Your task to perform on an android device: Clear the cart on target. Image 0: 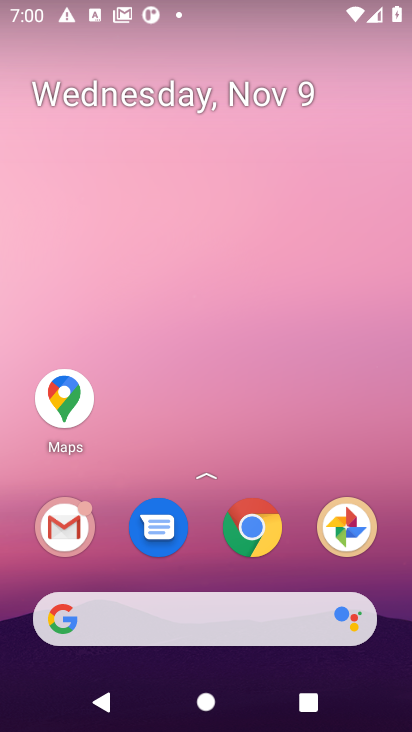
Step 0: press back button
Your task to perform on an android device: Clear the cart on target. Image 1: 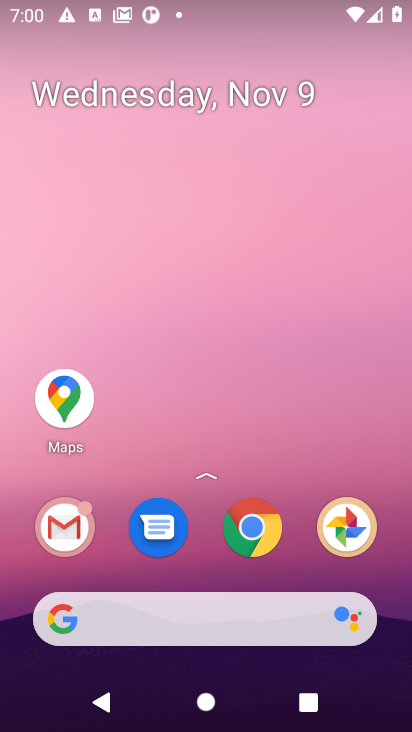
Step 1: press home button
Your task to perform on an android device: Clear the cart on target. Image 2: 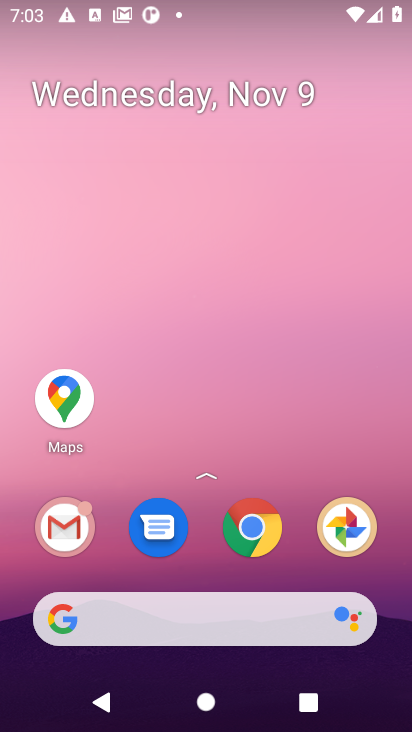
Step 2: press home button
Your task to perform on an android device: Clear the cart on target. Image 3: 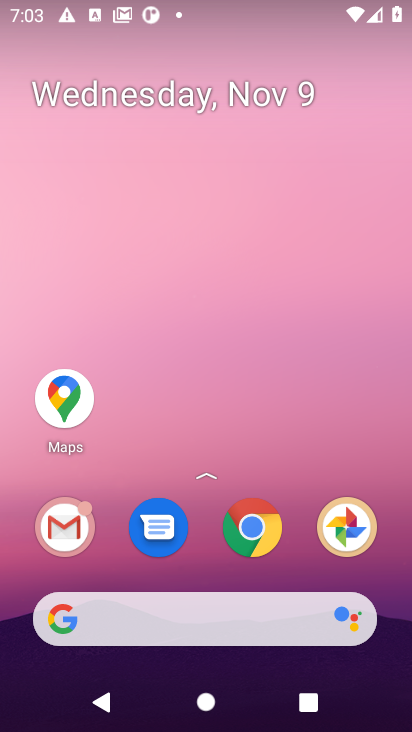
Step 3: click (253, 529)
Your task to perform on an android device: Clear the cart on target. Image 4: 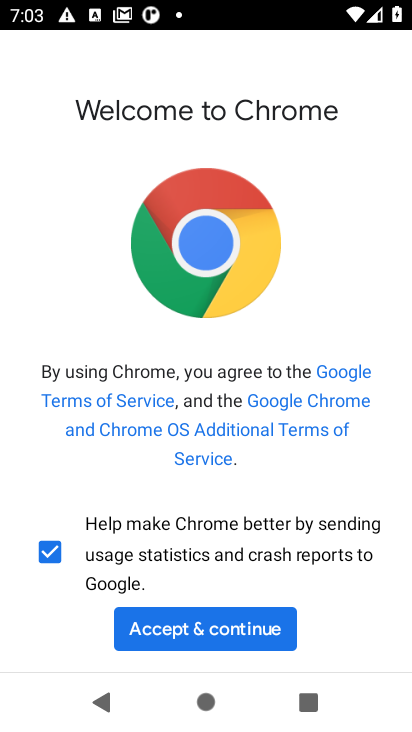
Step 4: click (183, 633)
Your task to perform on an android device: Clear the cart on target. Image 5: 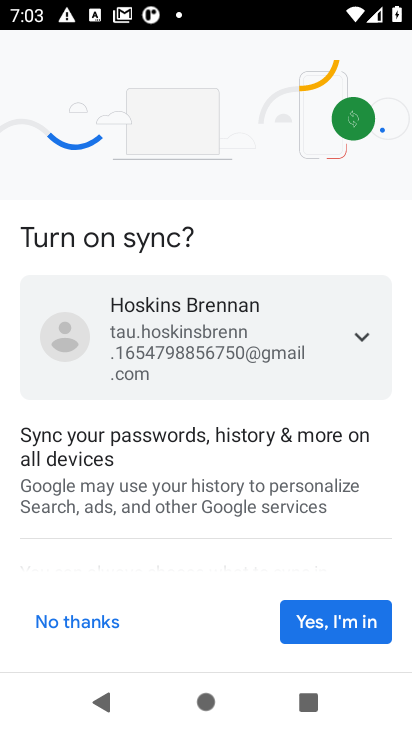
Step 5: click (333, 617)
Your task to perform on an android device: Clear the cart on target. Image 6: 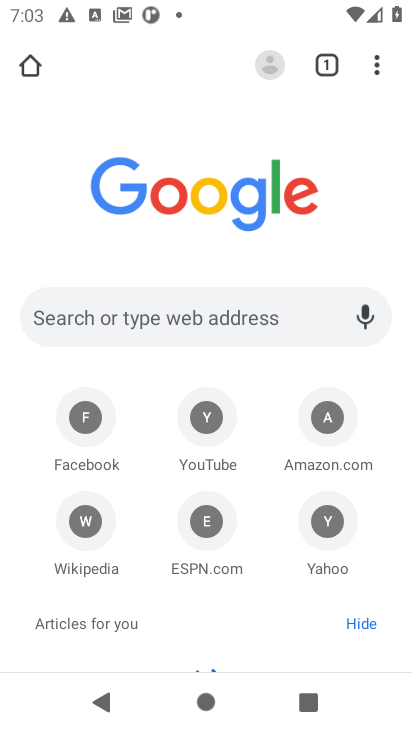
Step 6: click (122, 317)
Your task to perform on an android device: Clear the cart on target. Image 7: 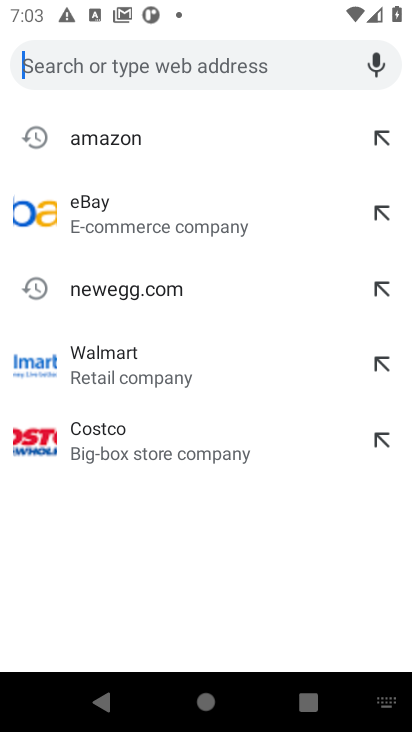
Step 7: type "target.com"
Your task to perform on an android device: Clear the cart on target. Image 8: 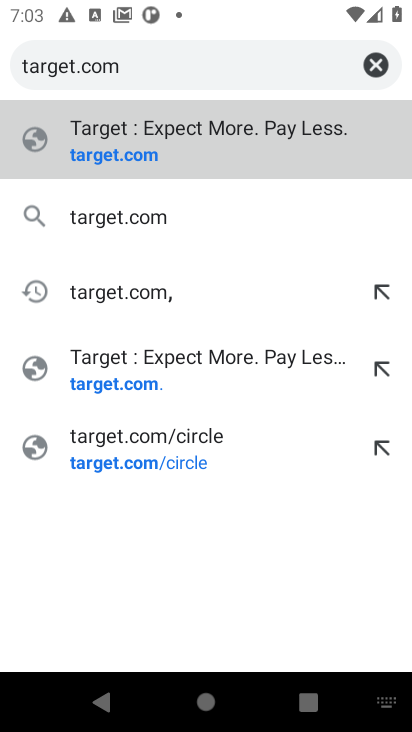
Step 8: click (125, 157)
Your task to perform on an android device: Clear the cart on target. Image 9: 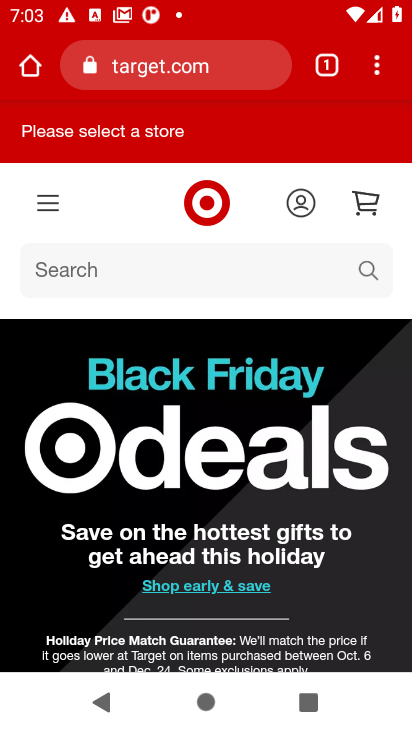
Step 9: click (362, 200)
Your task to perform on an android device: Clear the cart on target. Image 10: 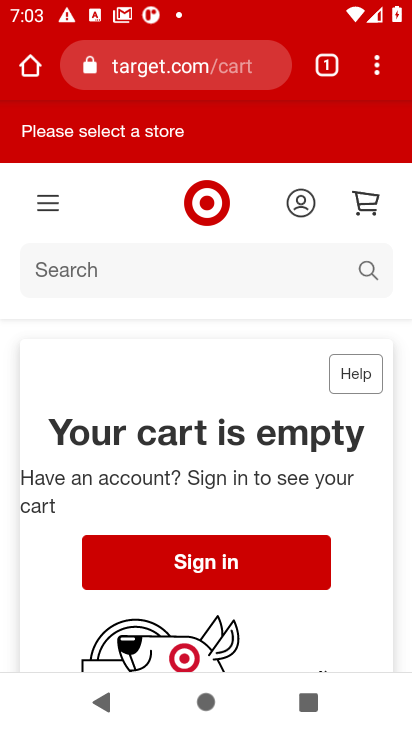
Step 10: task complete